Your task to perform on an android device: What is the recent news? Image 0: 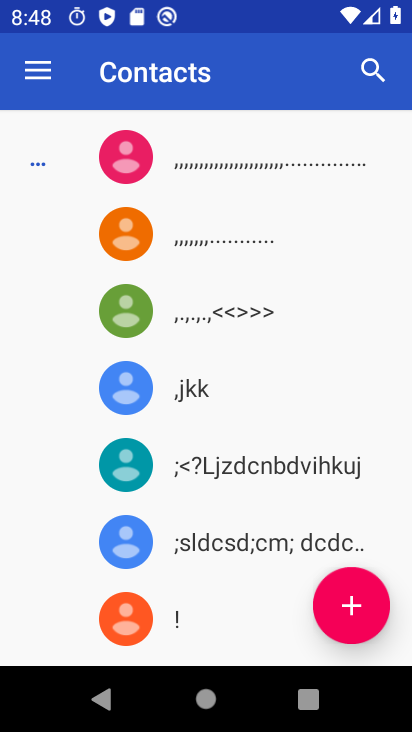
Step 0: press home button
Your task to perform on an android device: What is the recent news? Image 1: 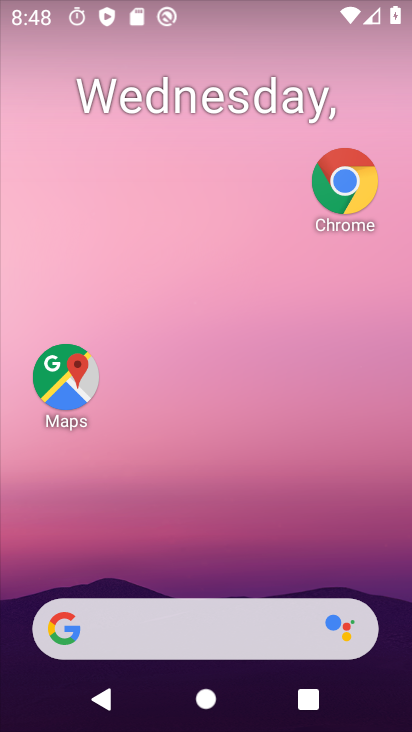
Step 1: click (190, 623)
Your task to perform on an android device: What is the recent news? Image 2: 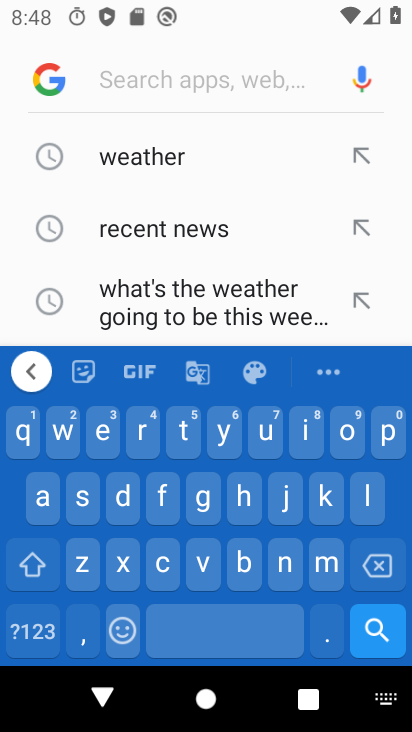
Step 2: click (175, 237)
Your task to perform on an android device: What is the recent news? Image 3: 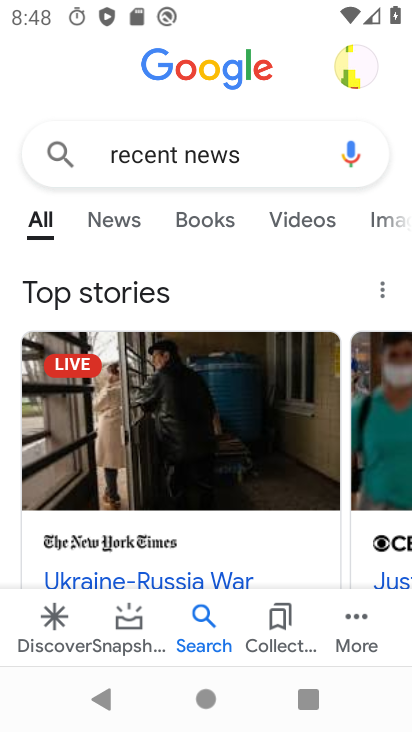
Step 3: task complete